Your task to perform on an android device: open a bookmark in the chrome app Image 0: 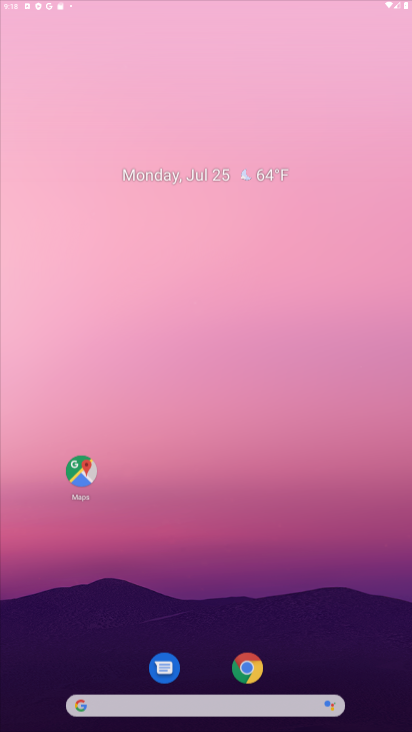
Step 0: drag from (172, 16) to (261, 27)
Your task to perform on an android device: open a bookmark in the chrome app Image 1: 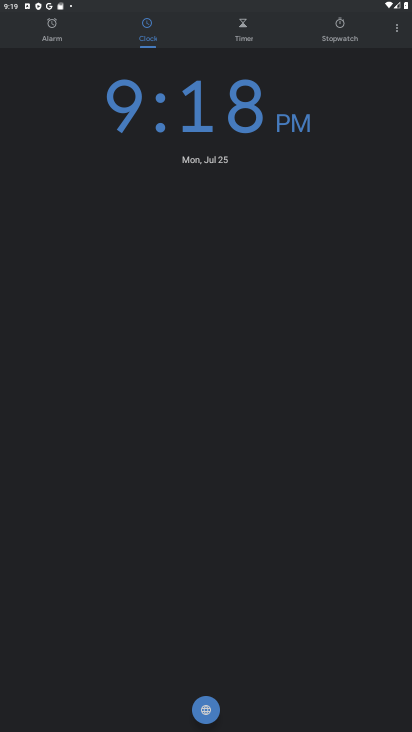
Step 1: press home button
Your task to perform on an android device: open a bookmark in the chrome app Image 2: 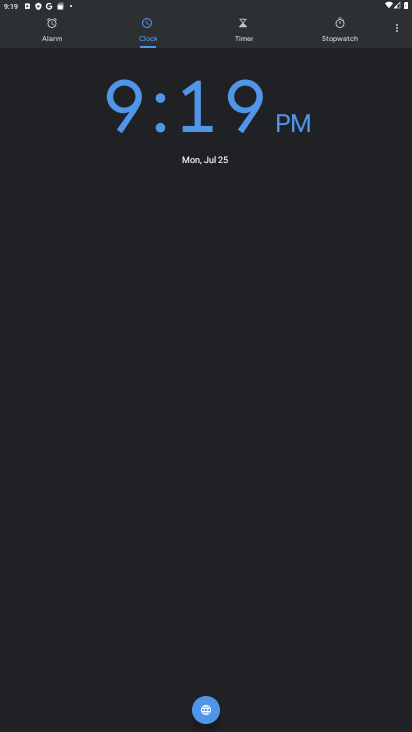
Step 2: drag from (378, 697) to (160, 57)
Your task to perform on an android device: open a bookmark in the chrome app Image 3: 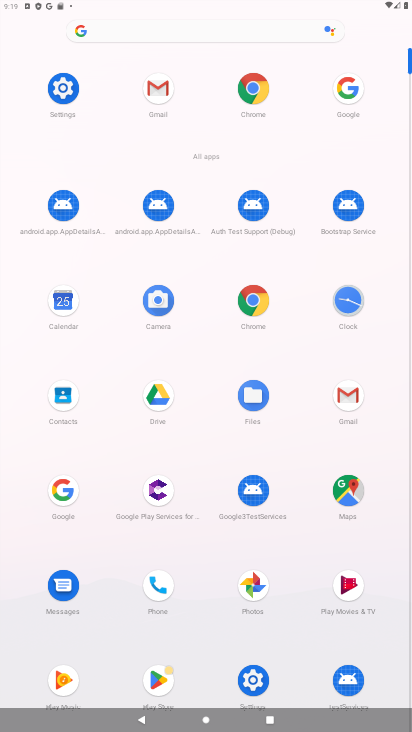
Step 3: click (241, 101)
Your task to perform on an android device: open a bookmark in the chrome app Image 4: 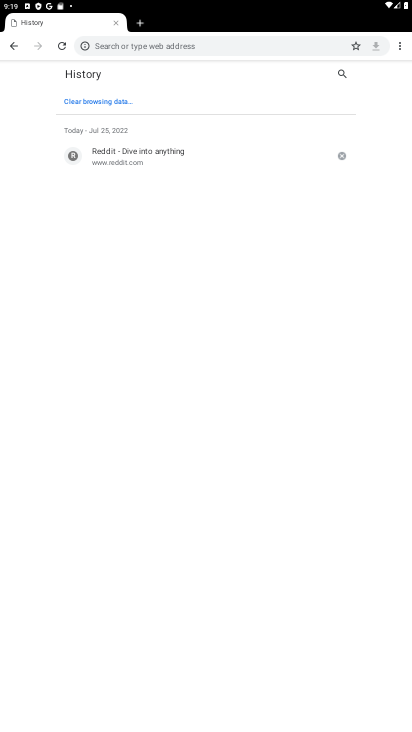
Step 4: click (402, 38)
Your task to perform on an android device: open a bookmark in the chrome app Image 5: 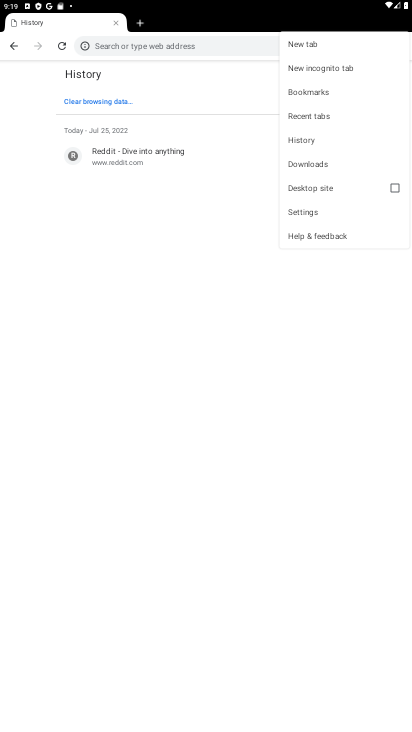
Step 5: click (323, 93)
Your task to perform on an android device: open a bookmark in the chrome app Image 6: 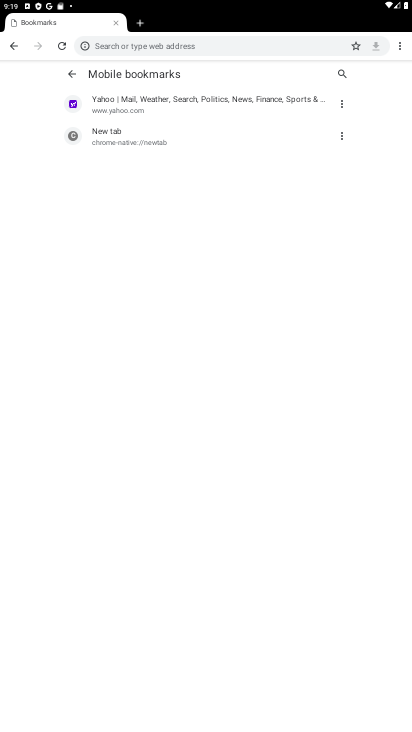
Step 6: task complete